Your task to perform on an android device: What's the weather going to be tomorrow? Image 0: 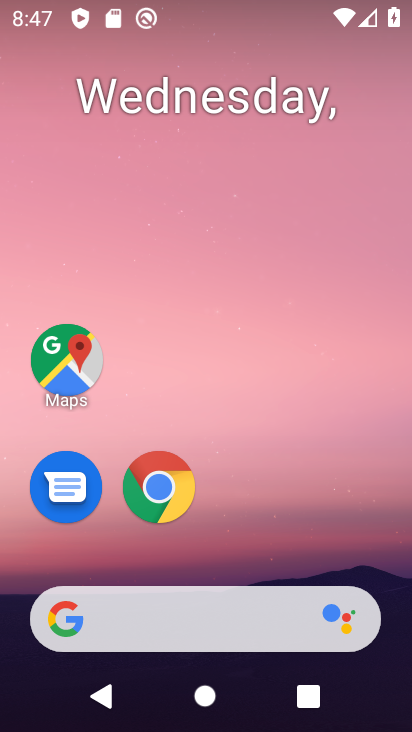
Step 0: click (187, 621)
Your task to perform on an android device: What's the weather going to be tomorrow? Image 1: 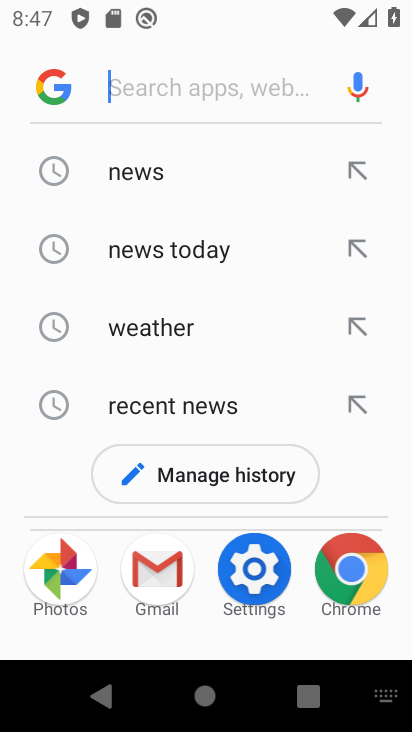
Step 1: click (183, 322)
Your task to perform on an android device: What's the weather going to be tomorrow? Image 2: 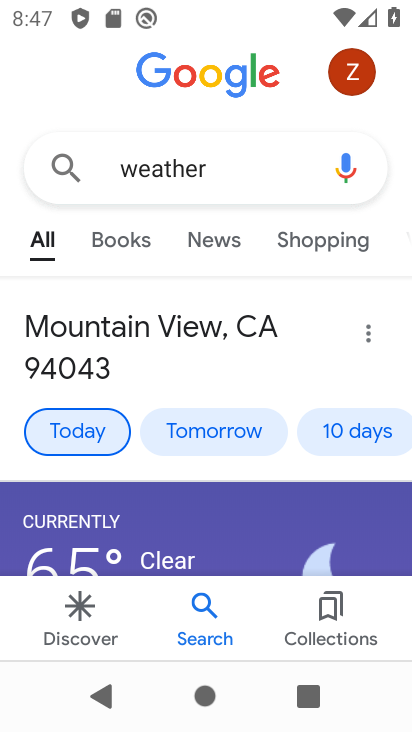
Step 2: click (201, 433)
Your task to perform on an android device: What's the weather going to be tomorrow? Image 3: 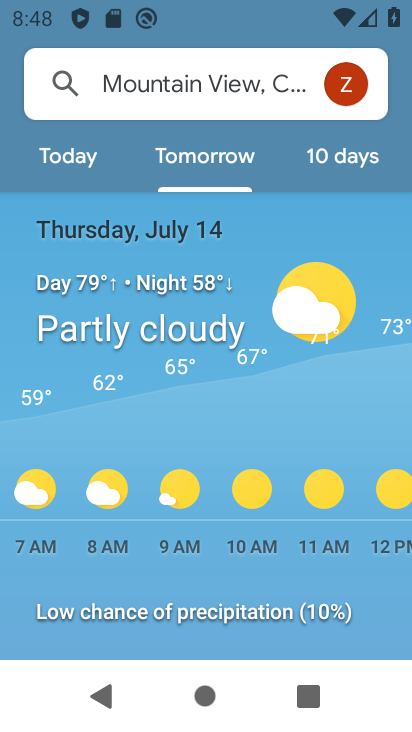
Step 3: task complete